Your task to perform on an android device: Set the phone to "Do not disturb". Image 0: 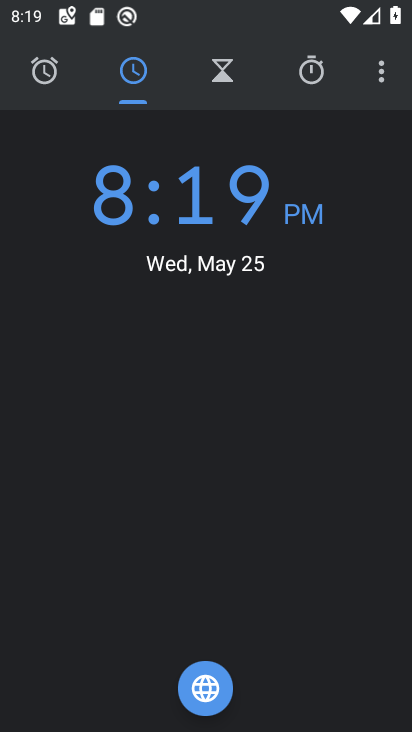
Step 0: press home button
Your task to perform on an android device: Set the phone to "Do not disturb". Image 1: 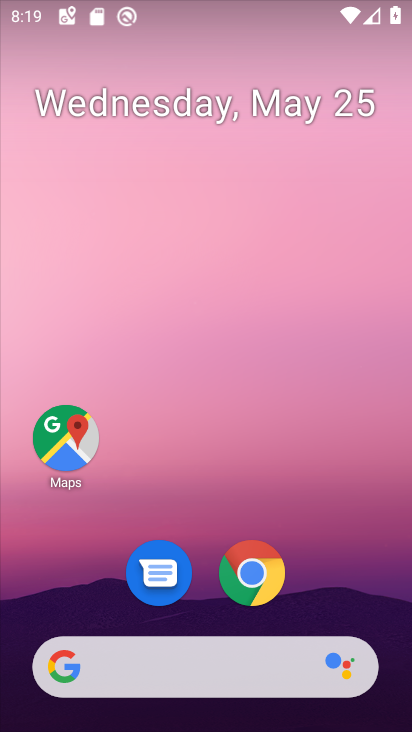
Step 1: drag from (393, 703) to (347, 294)
Your task to perform on an android device: Set the phone to "Do not disturb". Image 2: 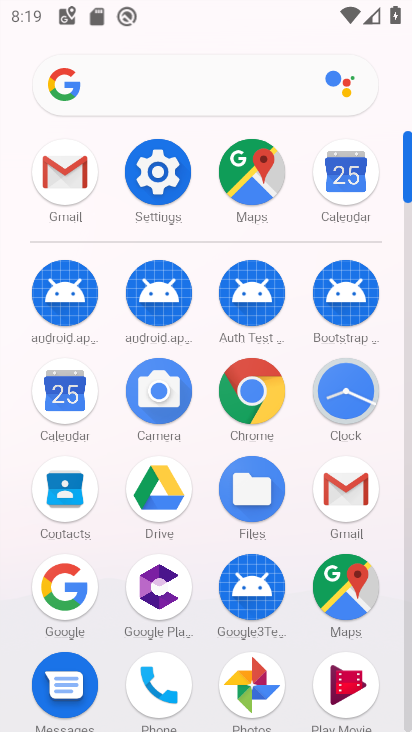
Step 2: click (165, 181)
Your task to perform on an android device: Set the phone to "Do not disturb". Image 3: 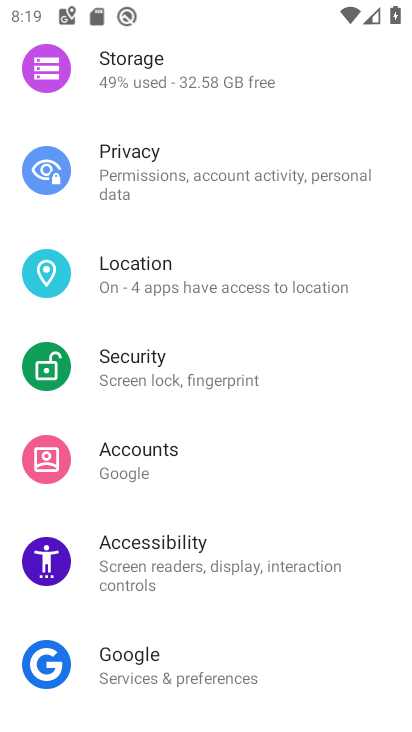
Step 3: click (127, 278)
Your task to perform on an android device: Set the phone to "Do not disturb". Image 4: 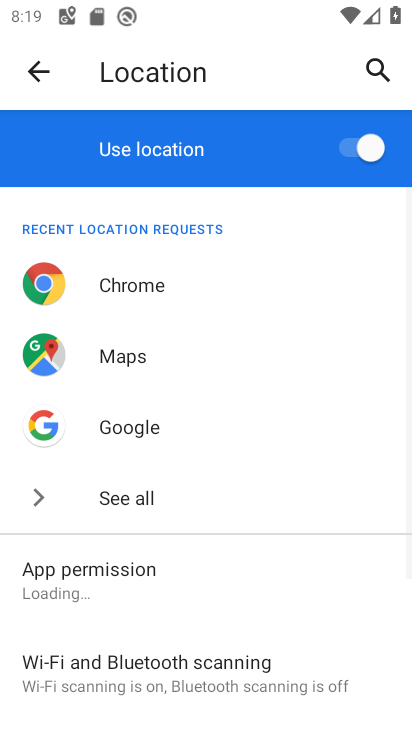
Step 4: click (42, 69)
Your task to perform on an android device: Set the phone to "Do not disturb". Image 5: 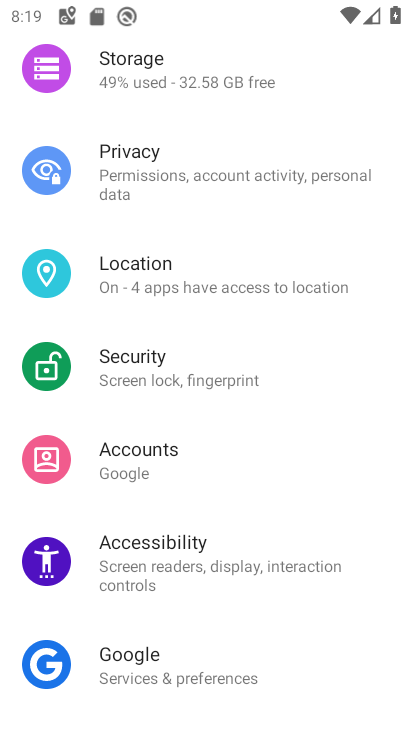
Step 5: drag from (316, 91) to (305, 545)
Your task to perform on an android device: Set the phone to "Do not disturb". Image 6: 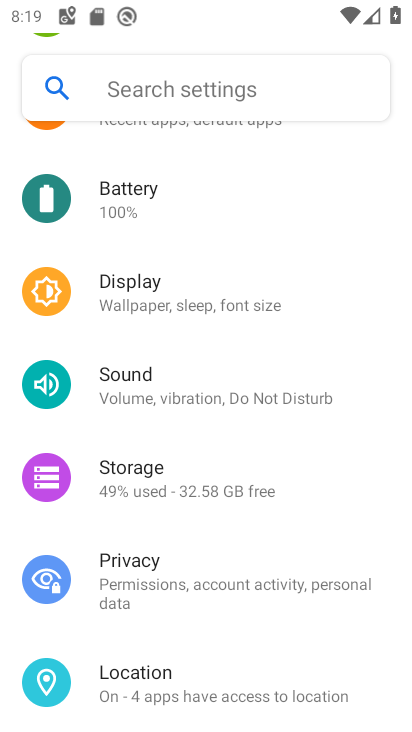
Step 6: click (131, 376)
Your task to perform on an android device: Set the phone to "Do not disturb". Image 7: 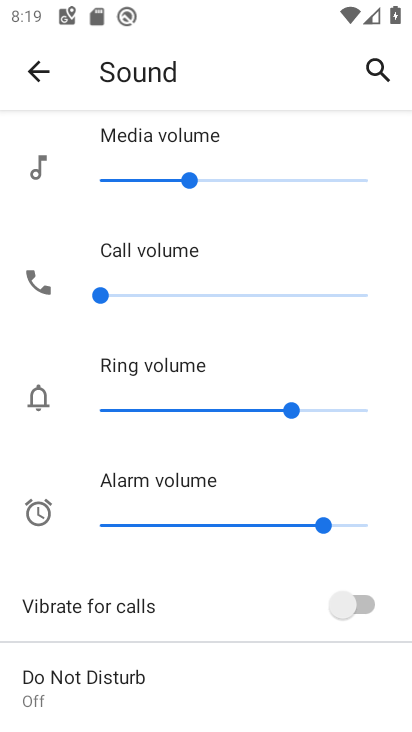
Step 7: drag from (207, 699) to (209, 352)
Your task to perform on an android device: Set the phone to "Do not disturb". Image 8: 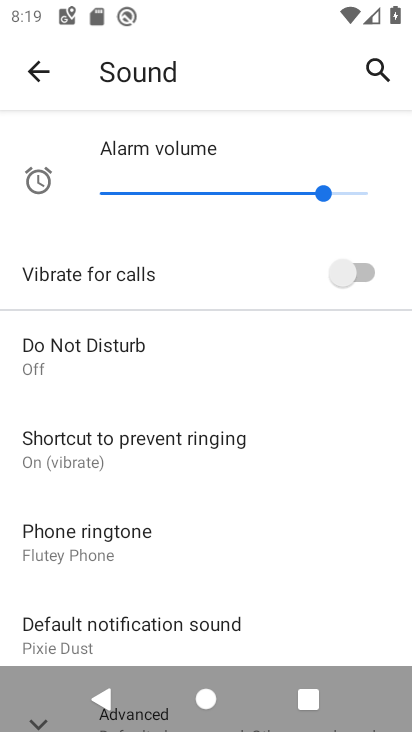
Step 8: click (50, 348)
Your task to perform on an android device: Set the phone to "Do not disturb". Image 9: 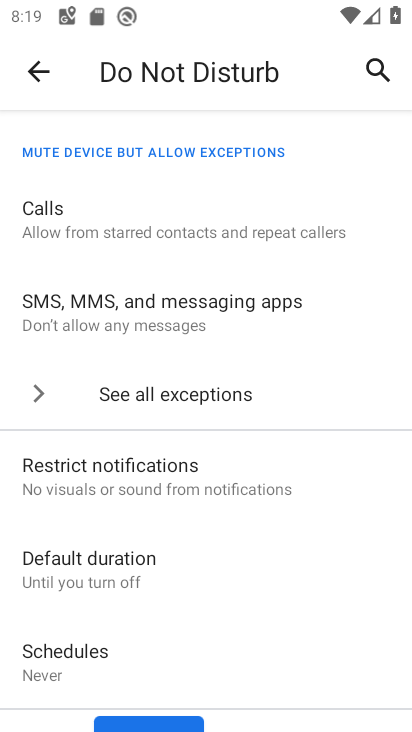
Step 9: drag from (277, 669) to (275, 406)
Your task to perform on an android device: Set the phone to "Do not disturb". Image 10: 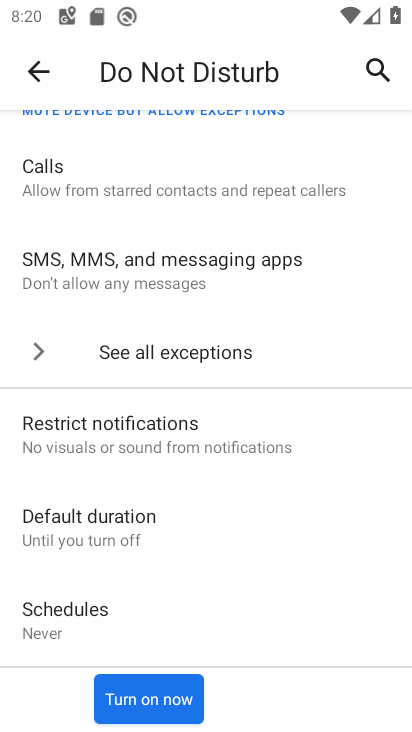
Step 10: click (134, 701)
Your task to perform on an android device: Set the phone to "Do not disturb". Image 11: 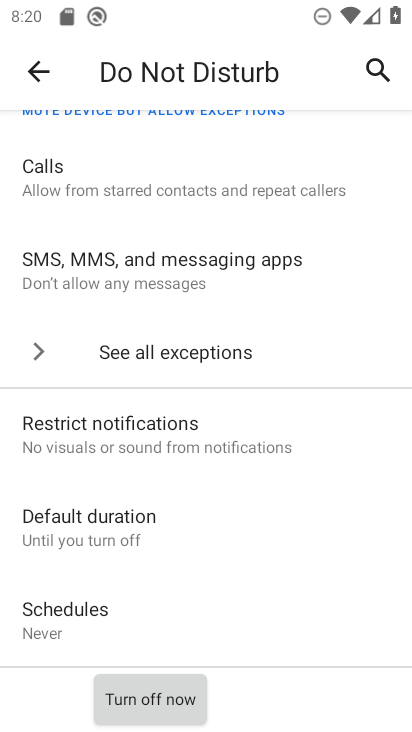
Step 11: task complete